Your task to perform on an android device: Open calendar and show me the fourth week of next month Image 0: 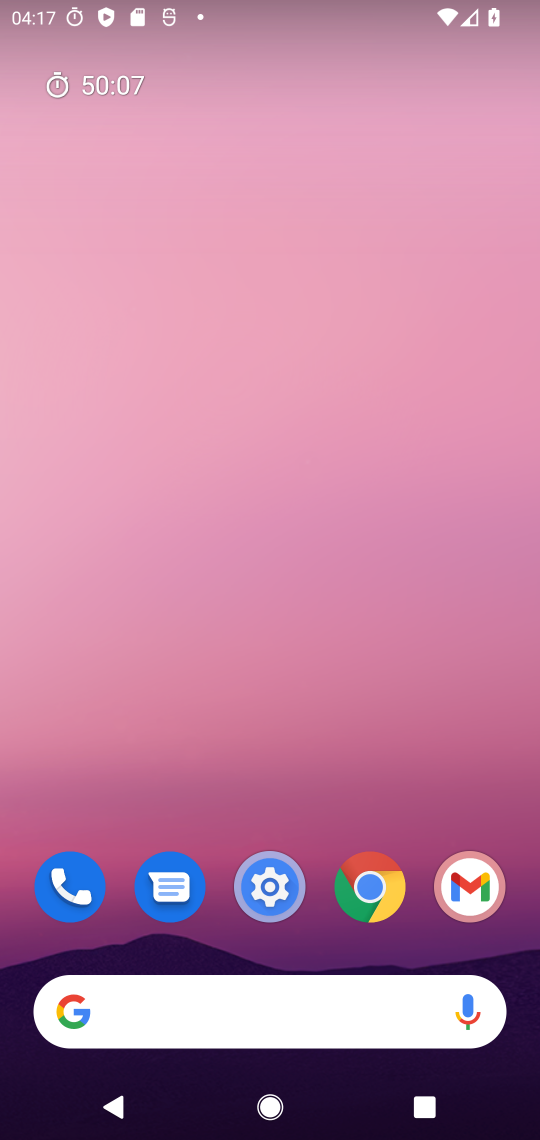
Step 0: press home button
Your task to perform on an android device: Open calendar and show me the fourth week of next month Image 1: 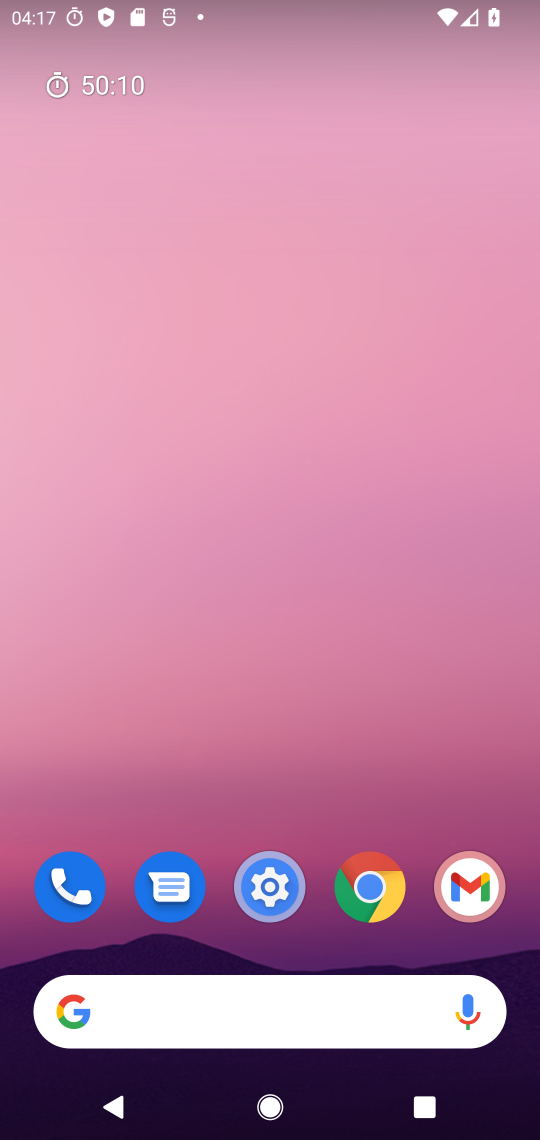
Step 1: drag from (365, 771) to (402, 214)
Your task to perform on an android device: Open calendar and show me the fourth week of next month Image 2: 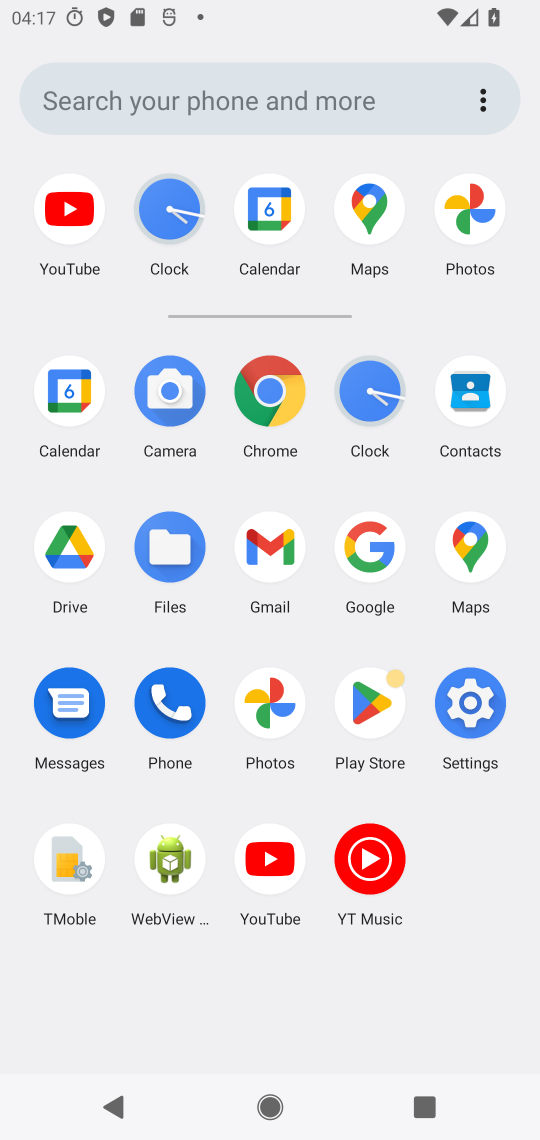
Step 2: click (56, 387)
Your task to perform on an android device: Open calendar and show me the fourth week of next month Image 3: 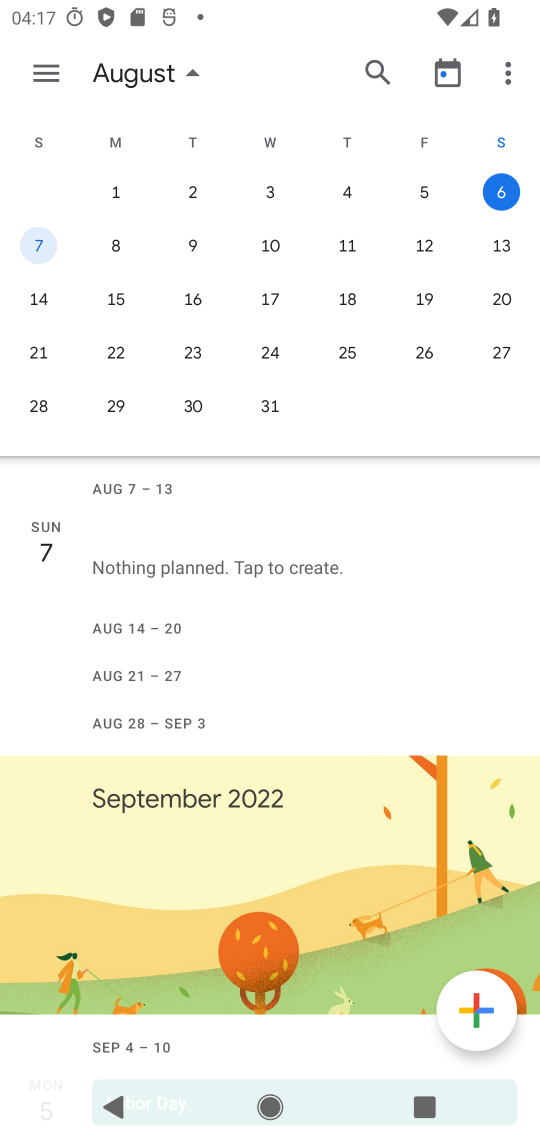
Step 3: drag from (508, 215) to (92, 198)
Your task to perform on an android device: Open calendar and show me the fourth week of next month Image 4: 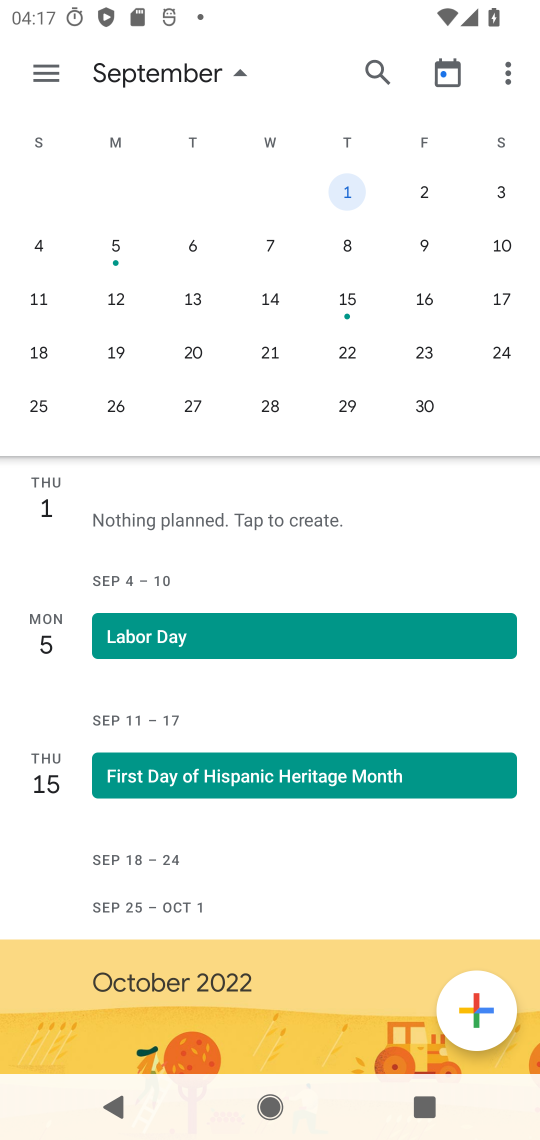
Step 4: click (112, 351)
Your task to perform on an android device: Open calendar and show me the fourth week of next month Image 5: 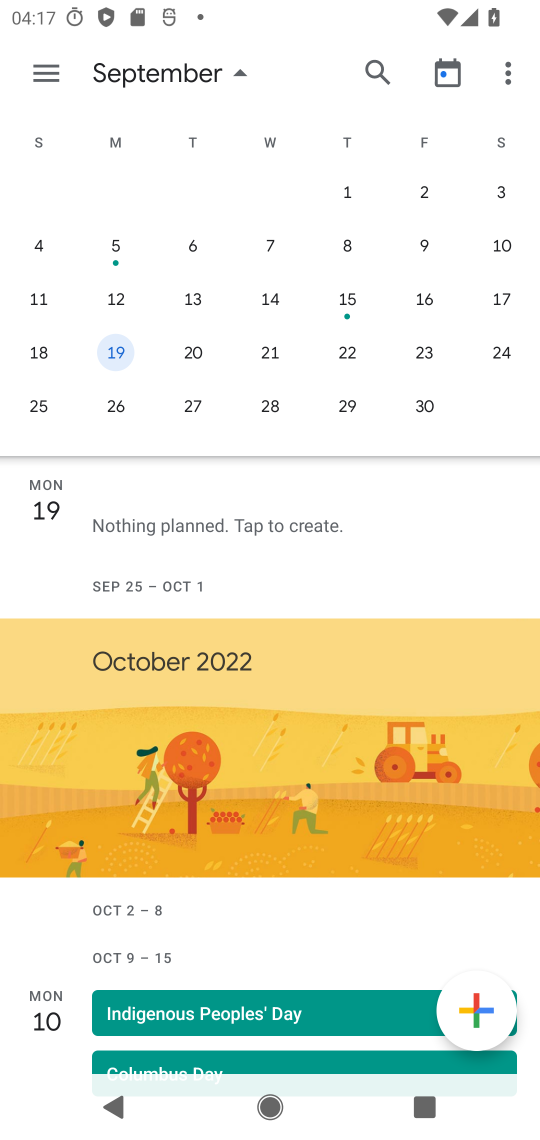
Step 5: task complete